Your task to perform on an android device: Open accessibility settings Image 0: 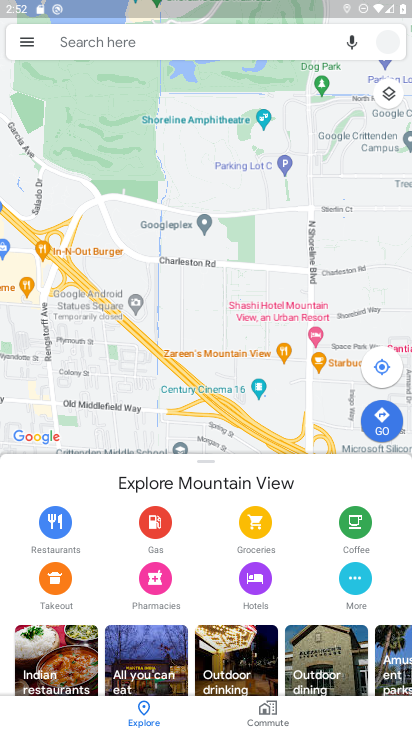
Step 0: press home button
Your task to perform on an android device: Open accessibility settings Image 1: 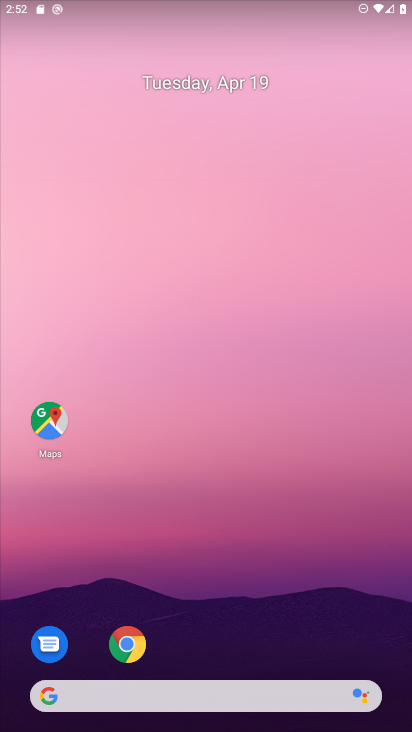
Step 1: drag from (192, 511) to (192, 152)
Your task to perform on an android device: Open accessibility settings Image 2: 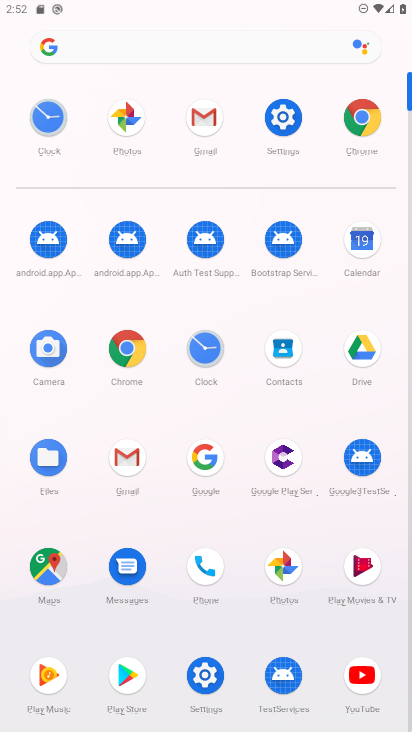
Step 2: click (284, 115)
Your task to perform on an android device: Open accessibility settings Image 3: 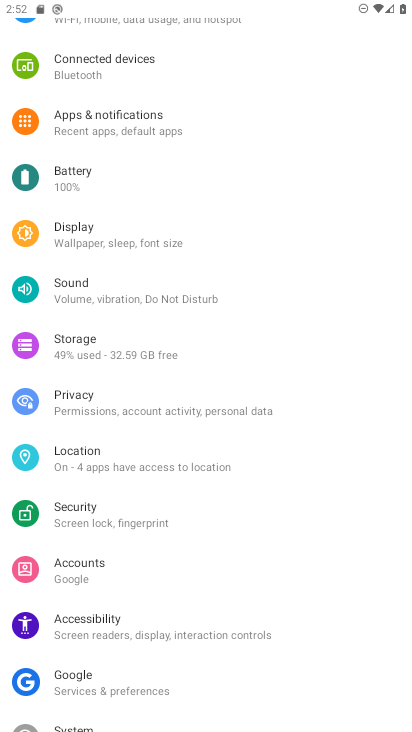
Step 3: click (102, 619)
Your task to perform on an android device: Open accessibility settings Image 4: 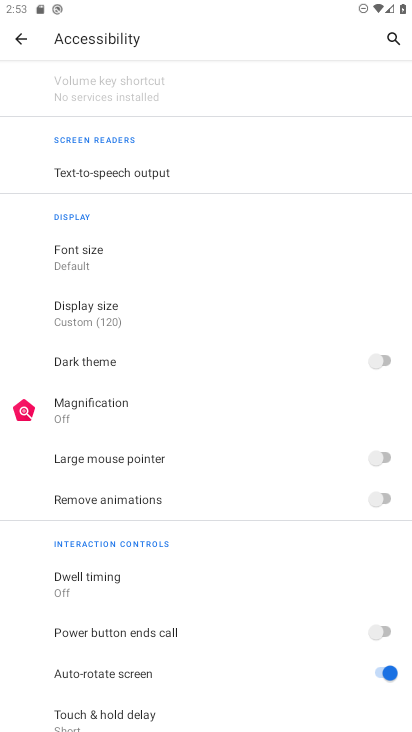
Step 4: task complete